Your task to perform on an android device: toggle location history Image 0: 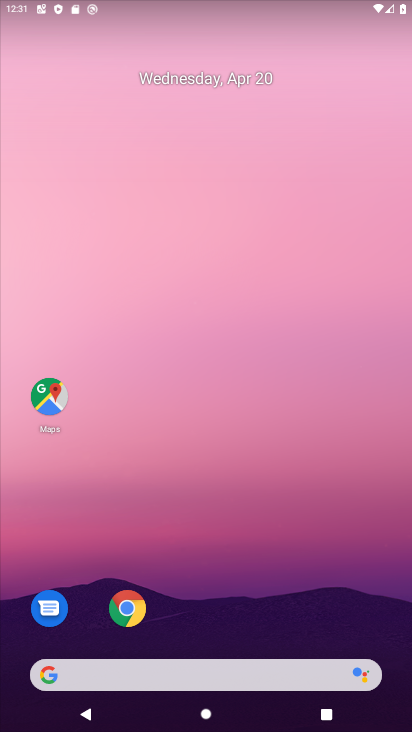
Step 0: click (39, 403)
Your task to perform on an android device: toggle location history Image 1: 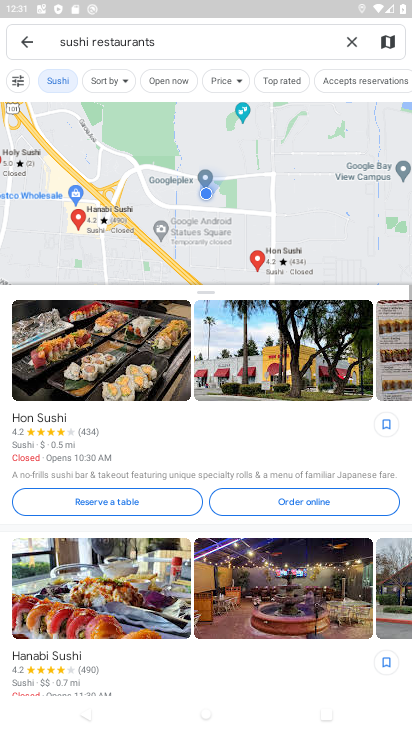
Step 1: click (26, 37)
Your task to perform on an android device: toggle location history Image 2: 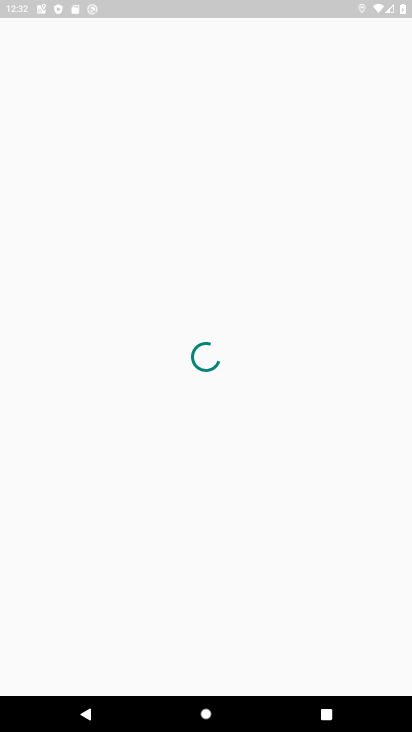
Step 2: click (26, 37)
Your task to perform on an android device: toggle location history Image 3: 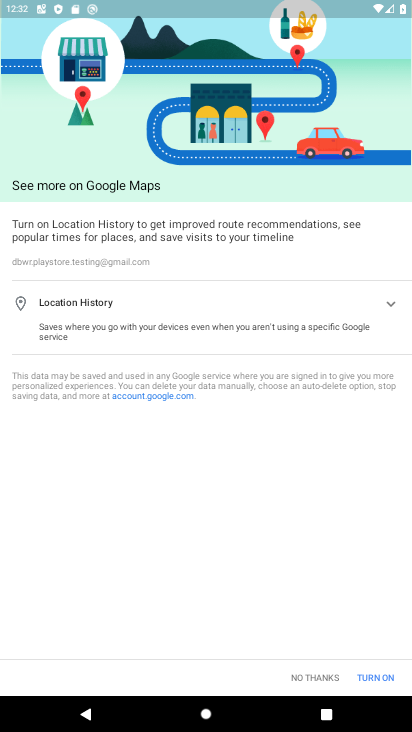
Step 3: click (370, 680)
Your task to perform on an android device: toggle location history Image 4: 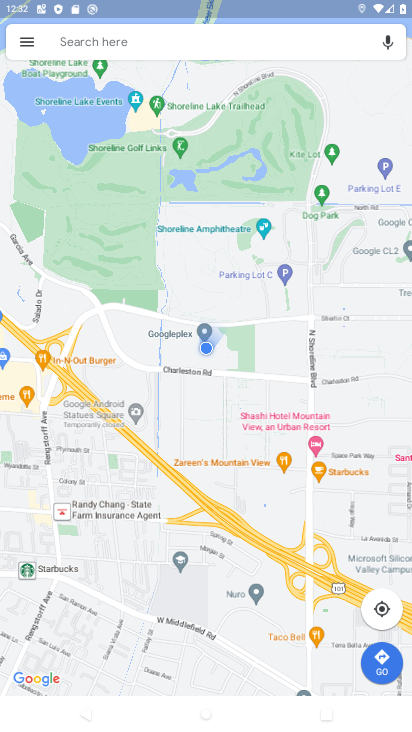
Step 4: click (28, 44)
Your task to perform on an android device: toggle location history Image 5: 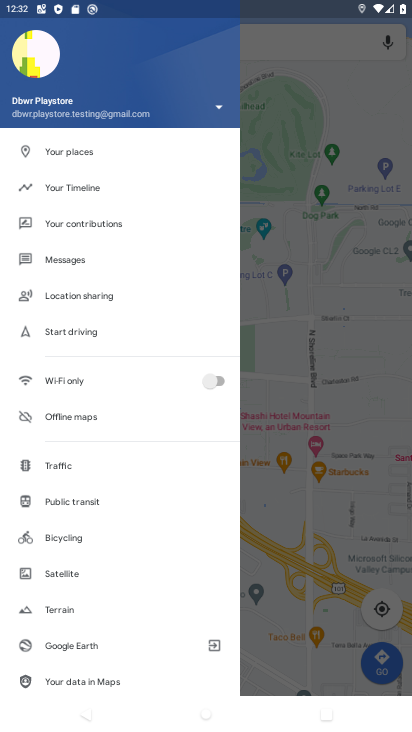
Step 5: click (79, 181)
Your task to perform on an android device: toggle location history Image 6: 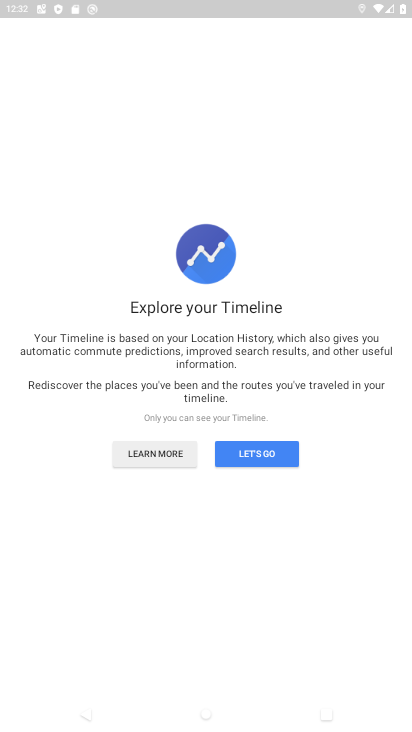
Step 6: click (254, 448)
Your task to perform on an android device: toggle location history Image 7: 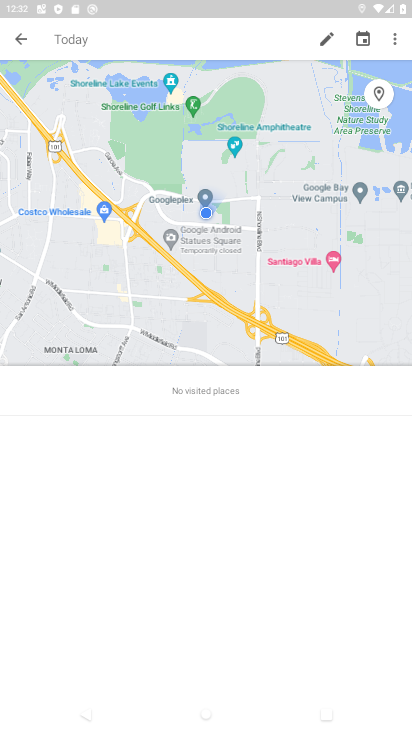
Step 7: click (393, 30)
Your task to perform on an android device: toggle location history Image 8: 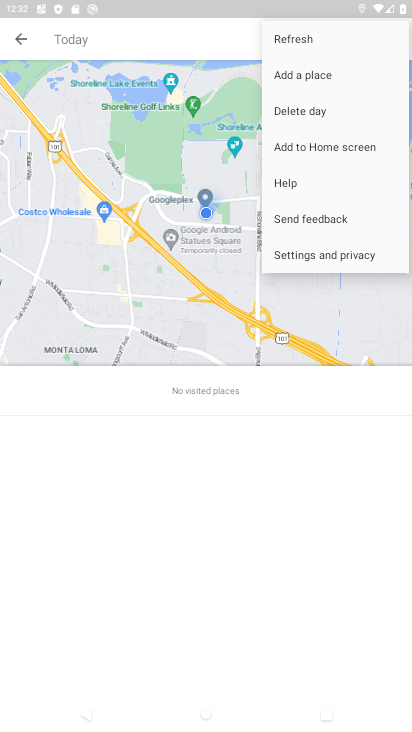
Step 8: click (349, 251)
Your task to perform on an android device: toggle location history Image 9: 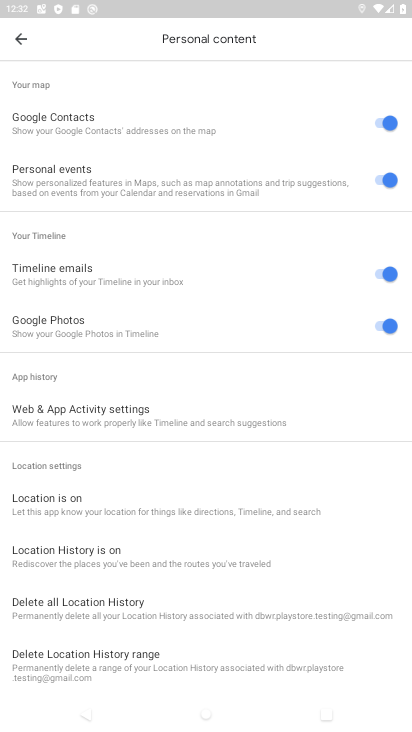
Step 9: click (230, 561)
Your task to perform on an android device: toggle location history Image 10: 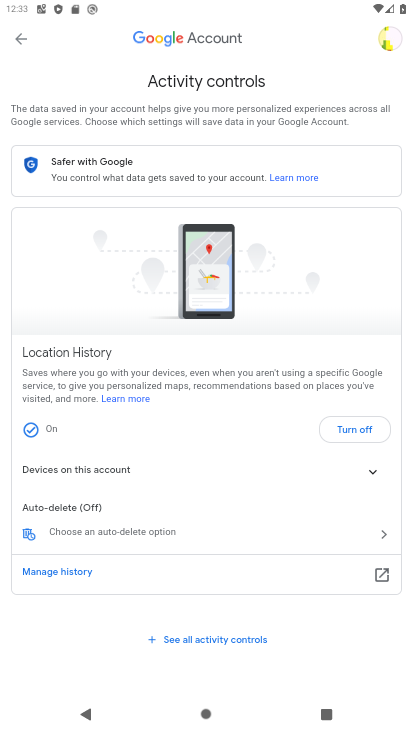
Step 10: click (353, 437)
Your task to perform on an android device: toggle location history Image 11: 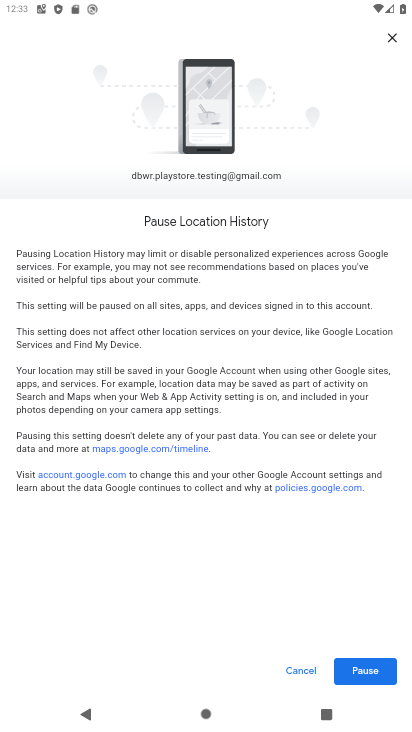
Step 11: click (371, 682)
Your task to perform on an android device: toggle location history Image 12: 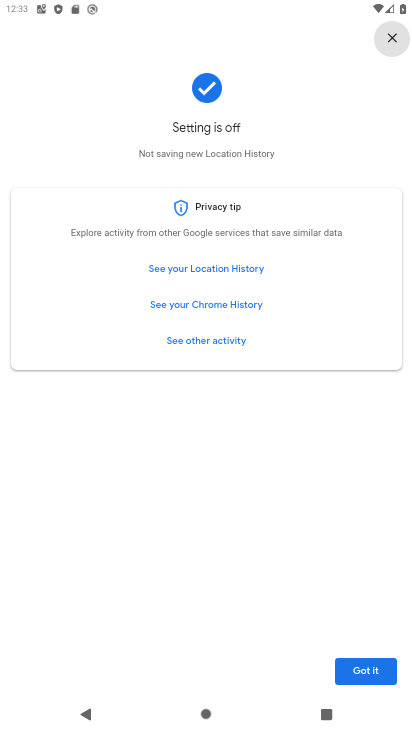
Step 12: click (370, 674)
Your task to perform on an android device: toggle location history Image 13: 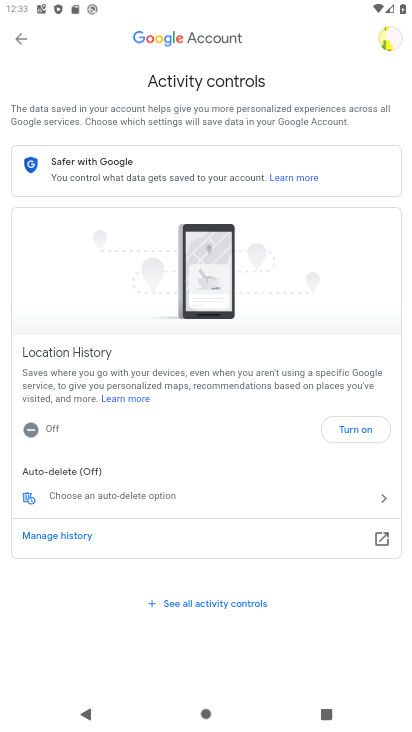
Step 13: task complete